Your task to perform on an android device: open device folders in google photos Image 0: 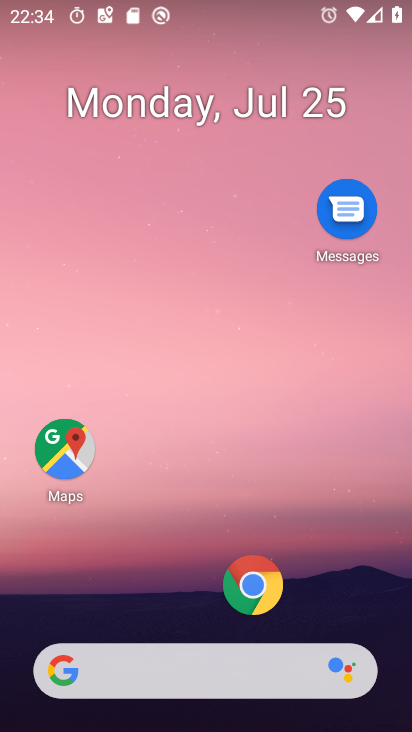
Step 0: drag from (198, 576) to (274, 156)
Your task to perform on an android device: open device folders in google photos Image 1: 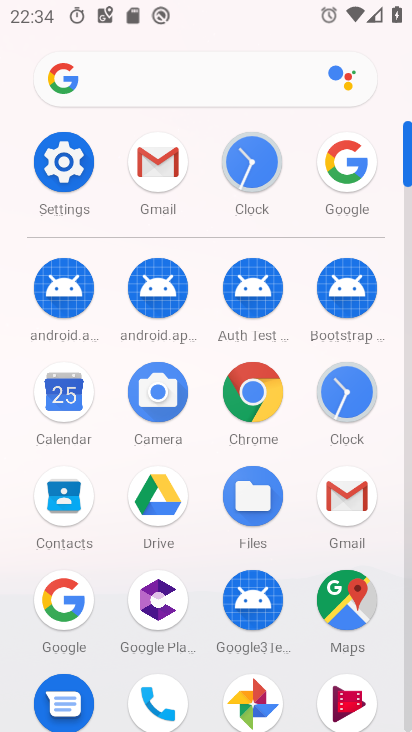
Step 1: drag from (204, 625) to (335, 134)
Your task to perform on an android device: open device folders in google photos Image 2: 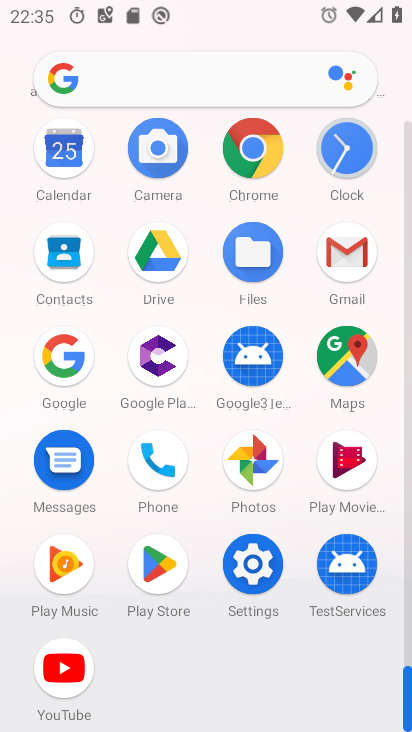
Step 2: click (257, 462)
Your task to perform on an android device: open device folders in google photos Image 3: 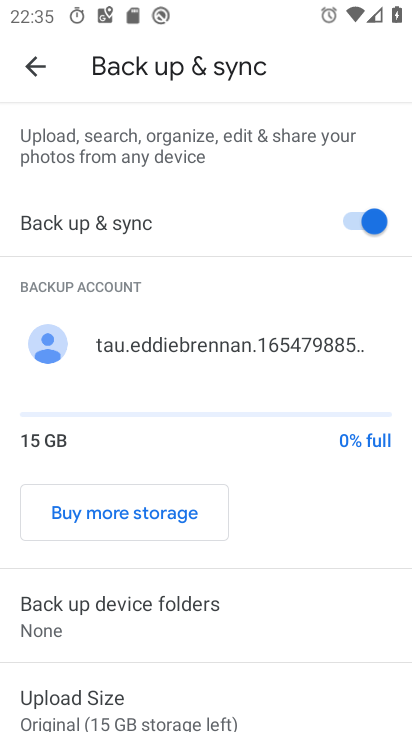
Step 3: click (39, 67)
Your task to perform on an android device: open device folders in google photos Image 4: 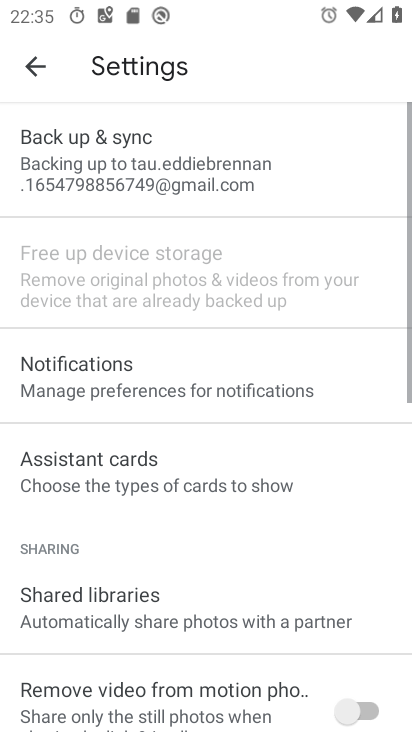
Step 4: click (39, 68)
Your task to perform on an android device: open device folders in google photos Image 5: 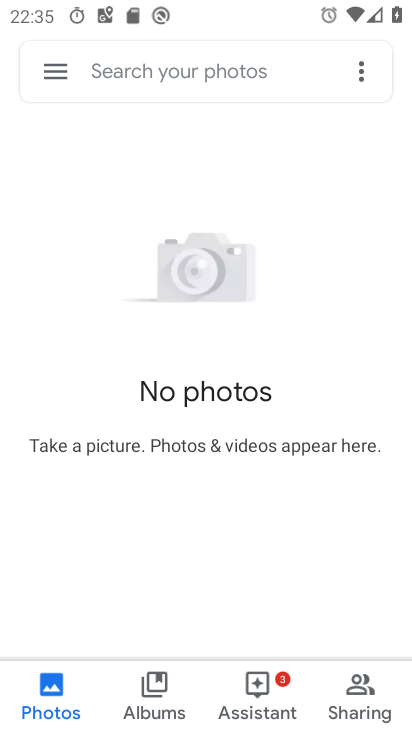
Step 5: click (56, 74)
Your task to perform on an android device: open device folders in google photos Image 6: 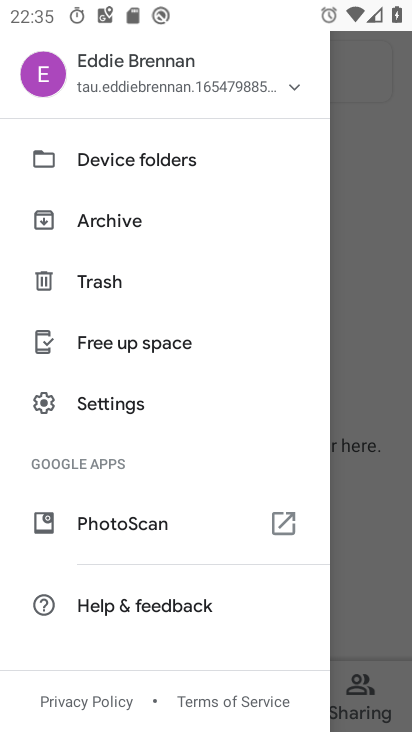
Step 6: click (79, 159)
Your task to perform on an android device: open device folders in google photos Image 7: 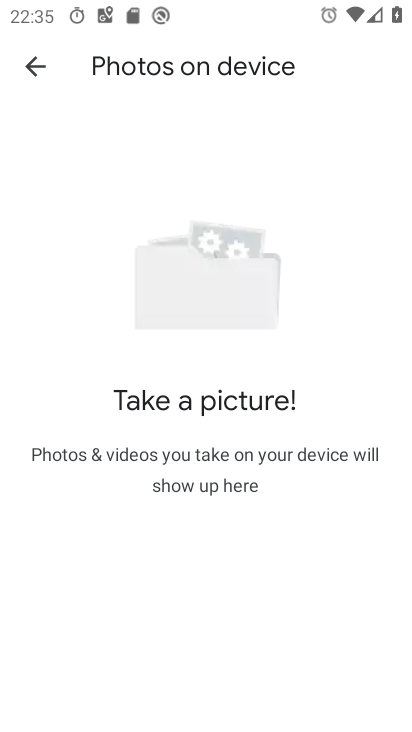
Step 7: task complete